Your task to perform on an android device: Open the calendar and show me this week's events? Image 0: 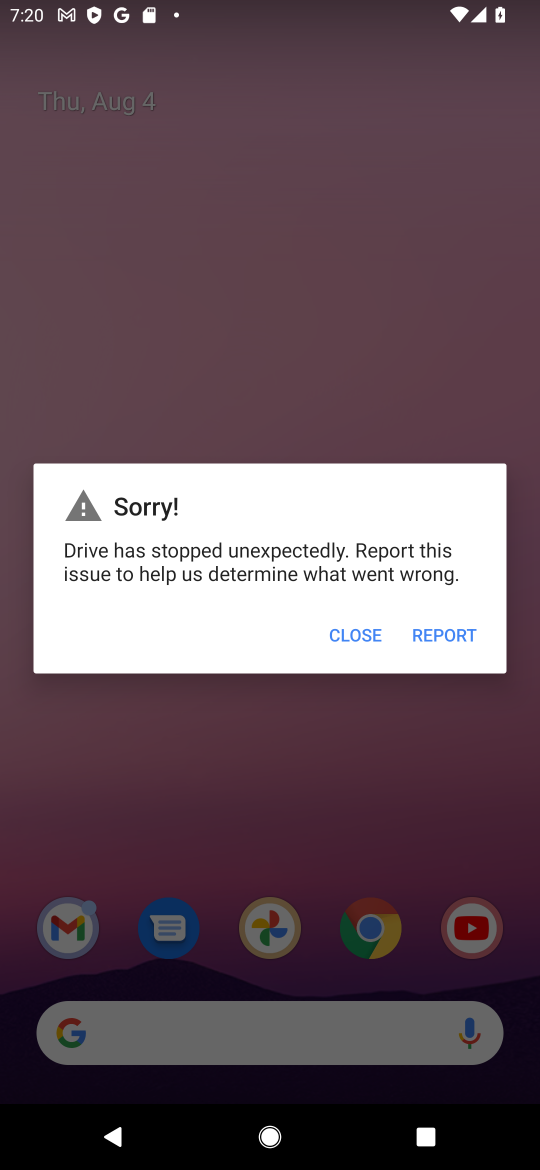
Step 0: click (374, 637)
Your task to perform on an android device: Open the calendar and show me this week's events? Image 1: 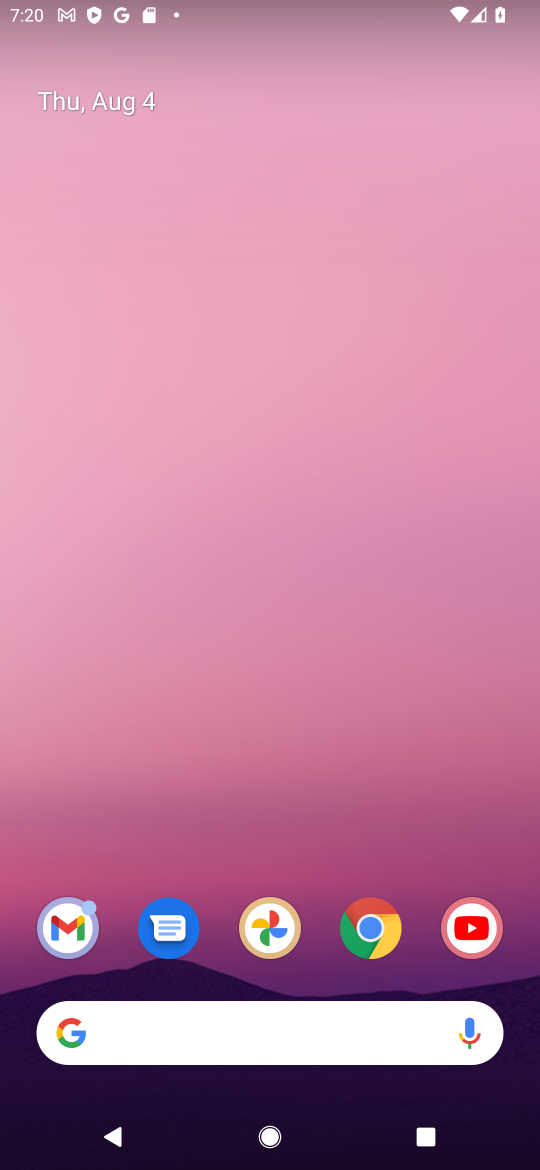
Step 1: drag from (282, 912) to (282, 12)
Your task to perform on an android device: Open the calendar and show me this week's events? Image 2: 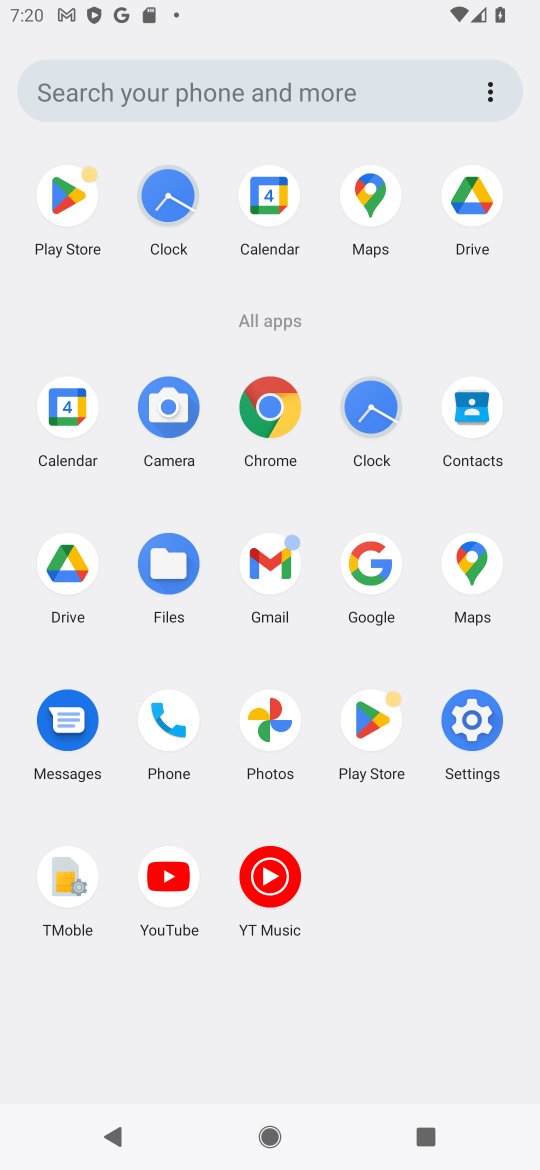
Step 2: click (78, 431)
Your task to perform on an android device: Open the calendar and show me this week's events? Image 3: 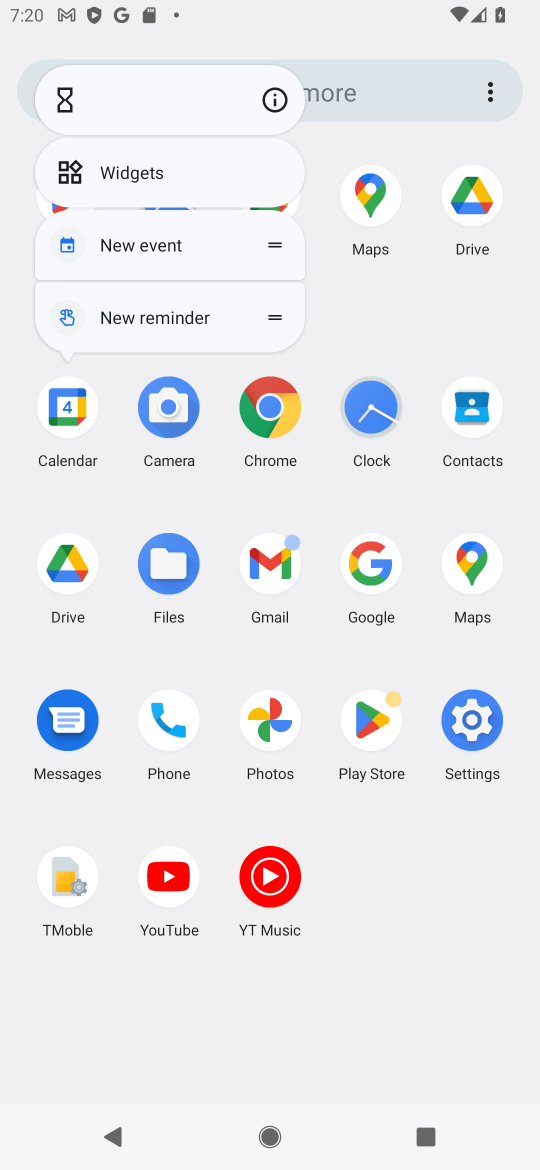
Step 3: click (78, 431)
Your task to perform on an android device: Open the calendar and show me this week's events? Image 4: 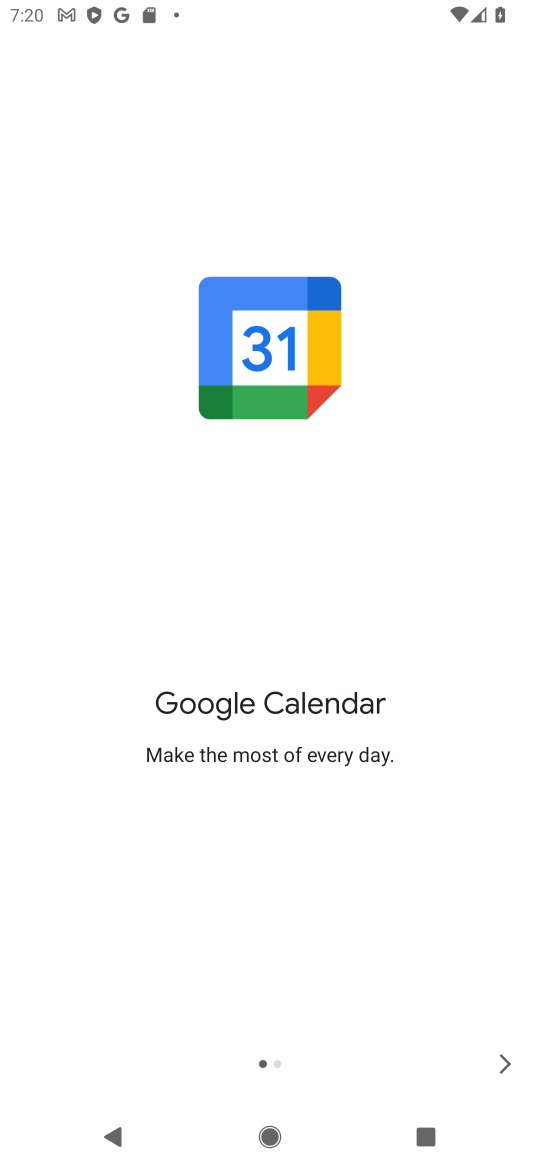
Step 4: click (496, 1057)
Your task to perform on an android device: Open the calendar and show me this week's events? Image 5: 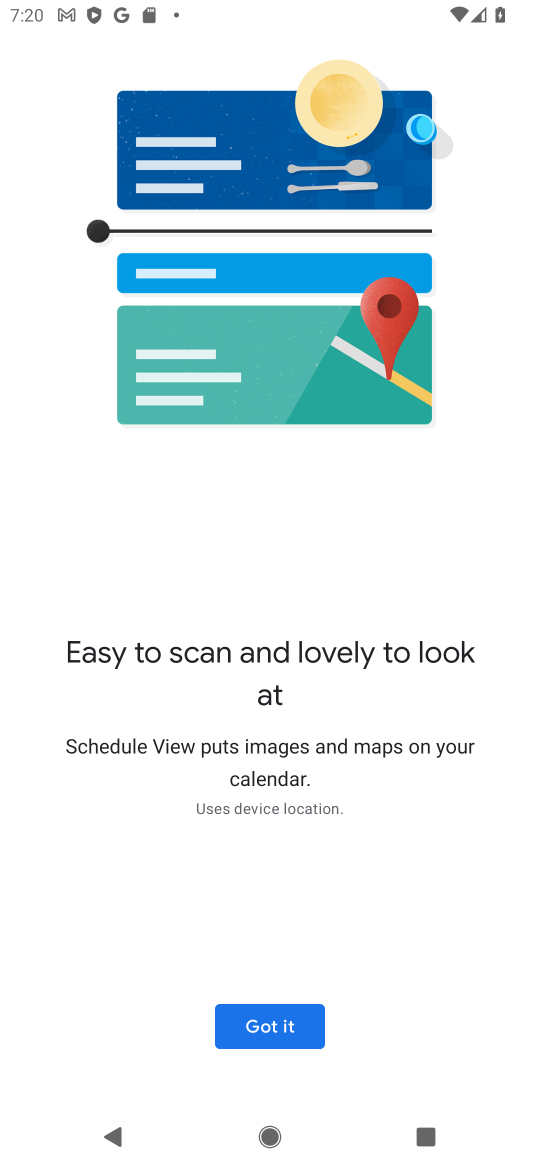
Step 5: click (257, 1025)
Your task to perform on an android device: Open the calendar and show me this week's events? Image 6: 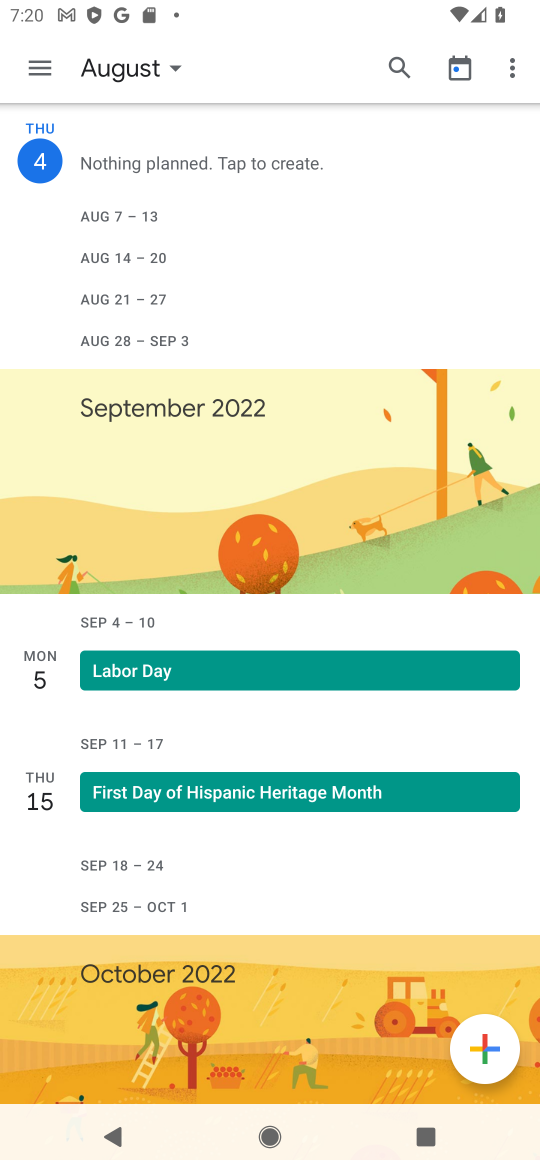
Step 6: click (48, 63)
Your task to perform on an android device: Open the calendar and show me this week's events? Image 7: 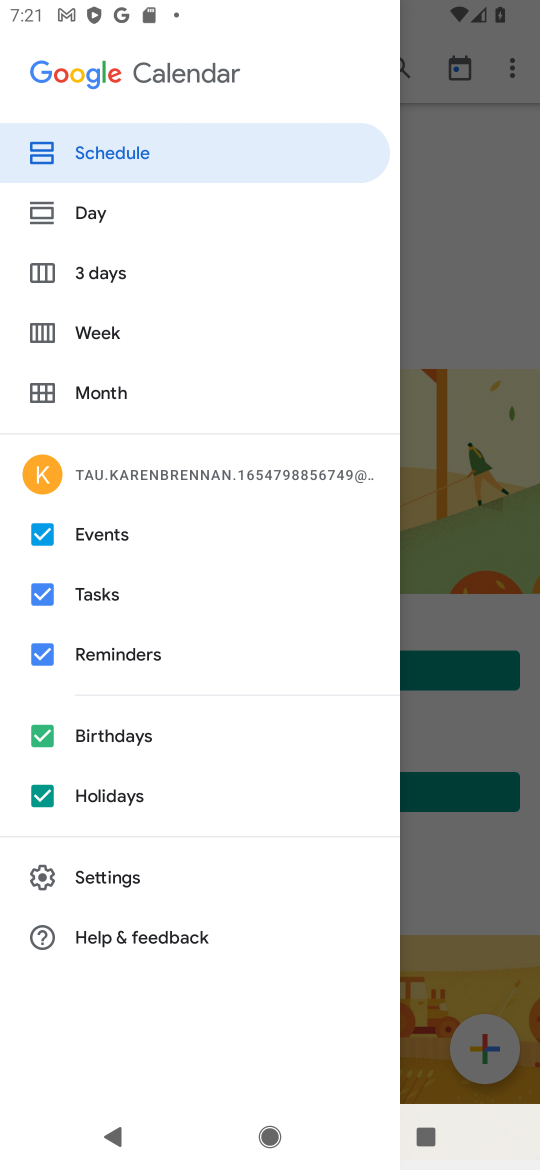
Step 7: click (98, 589)
Your task to perform on an android device: Open the calendar and show me this week's events? Image 8: 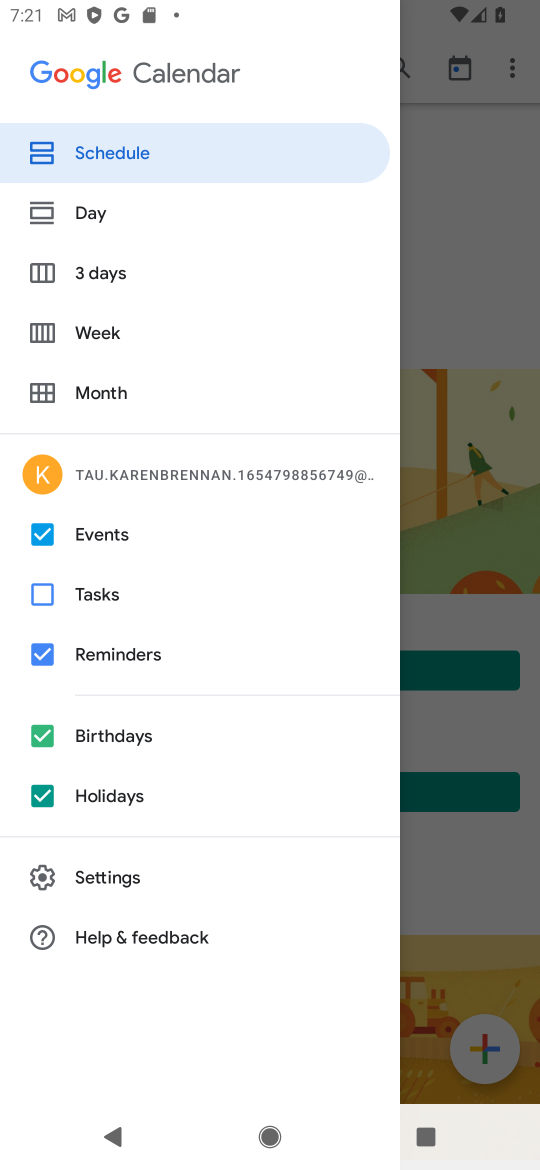
Step 8: click (89, 653)
Your task to perform on an android device: Open the calendar and show me this week's events? Image 9: 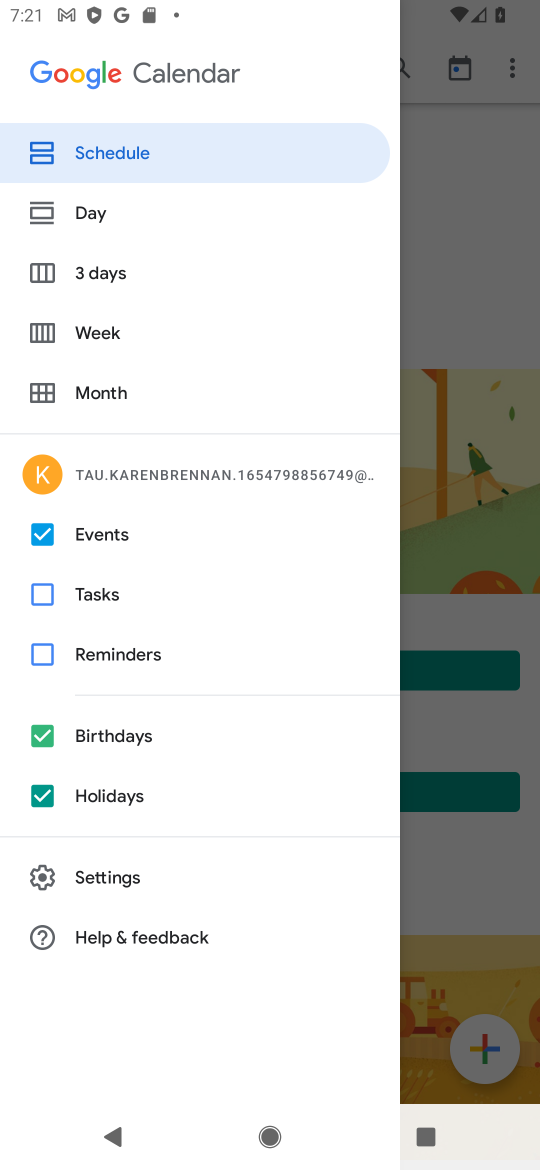
Step 9: click (99, 736)
Your task to perform on an android device: Open the calendar and show me this week's events? Image 10: 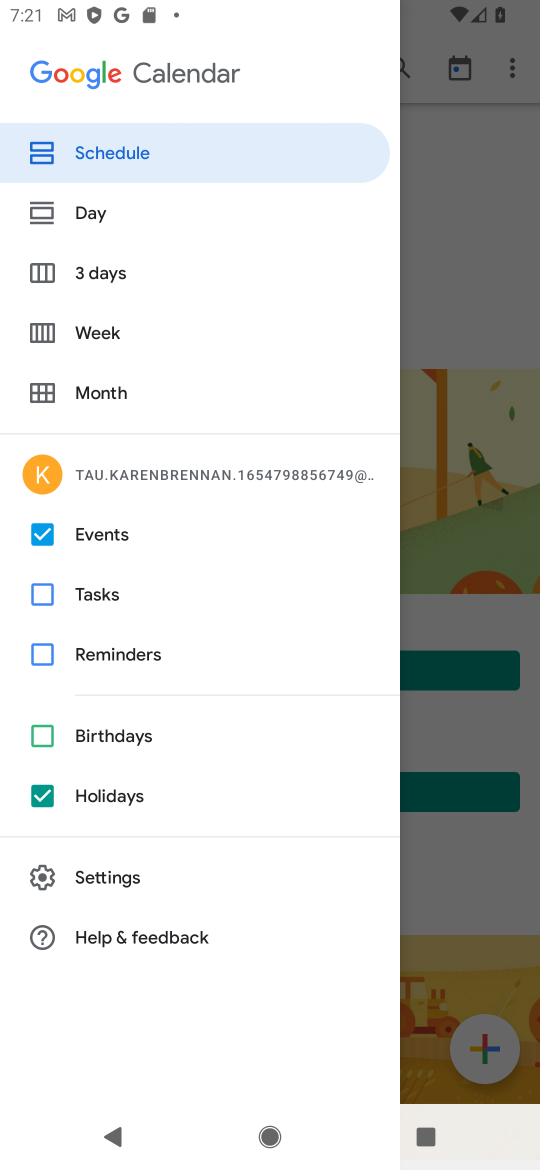
Step 10: click (77, 807)
Your task to perform on an android device: Open the calendar and show me this week's events? Image 11: 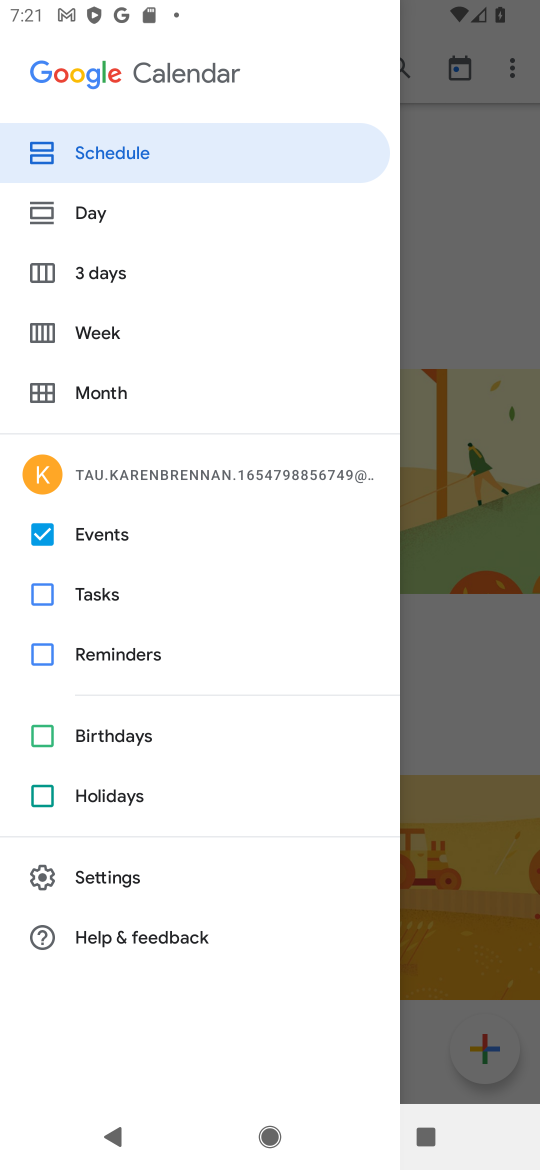
Step 11: click (110, 338)
Your task to perform on an android device: Open the calendar and show me this week's events? Image 12: 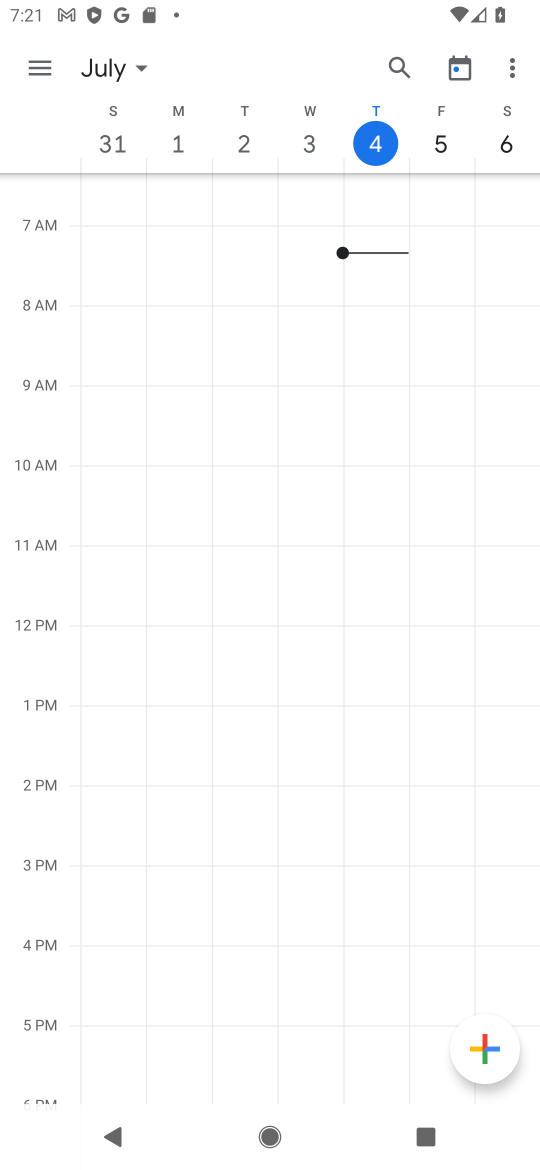
Step 12: task complete